Your task to perform on an android device: set the timer Image 0: 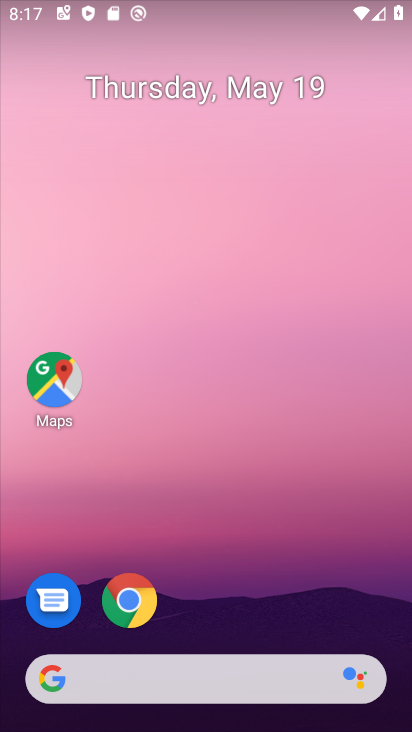
Step 0: drag from (236, 599) to (217, 21)
Your task to perform on an android device: set the timer Image 1: 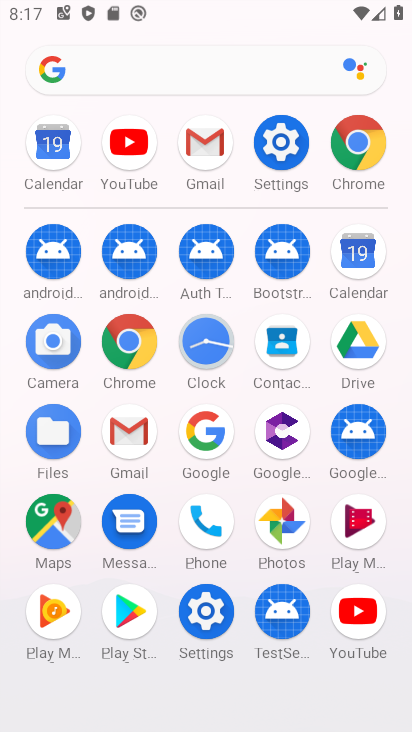
Step 1: click (211, 349)
Your task to perform on an android device: set the timer Image 2: 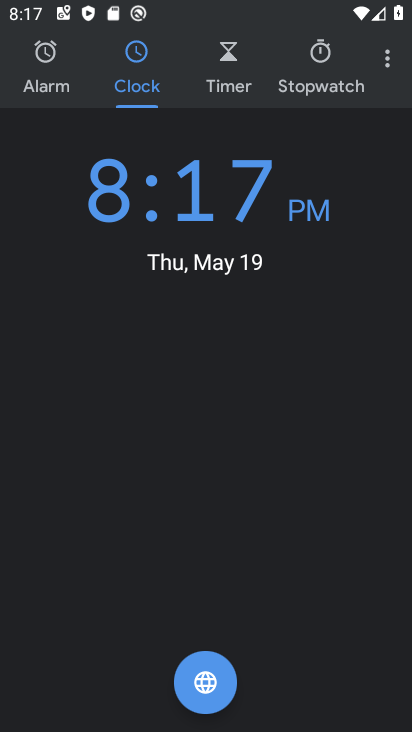
Step 2: click (234, 71)
Your task to perform on an android device: set the timer Image 3: 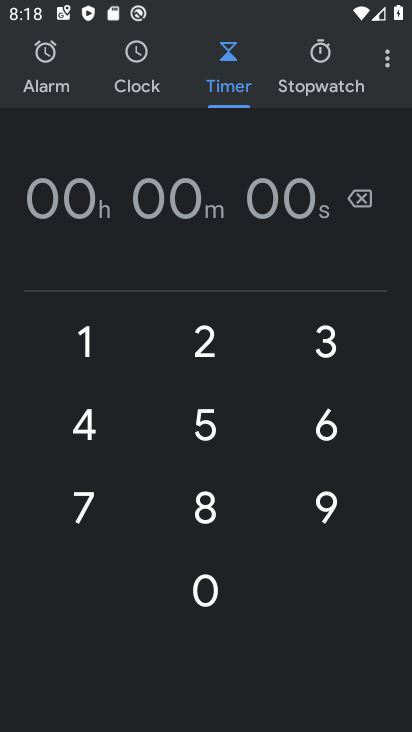
Step 3: click (202, 354)
Your task to perform on an android device: set the timer Image 4: 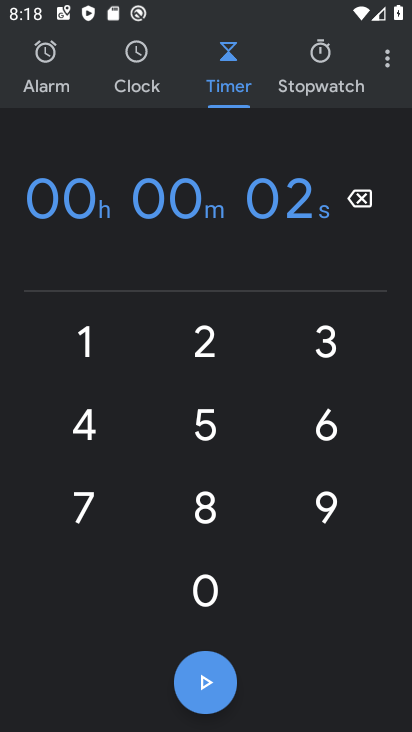
Step 4: click (208, 598)
Your task to perform on an android device: set the timer Image 5: 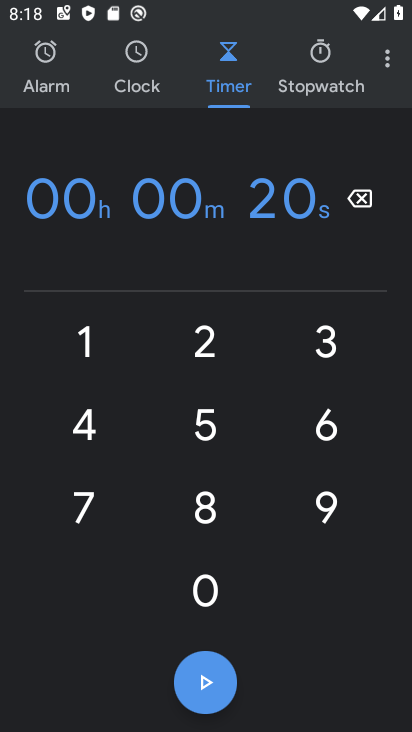
Step 5: click (209, 685)
Your task to perform on an android device: set the timer Image 6: 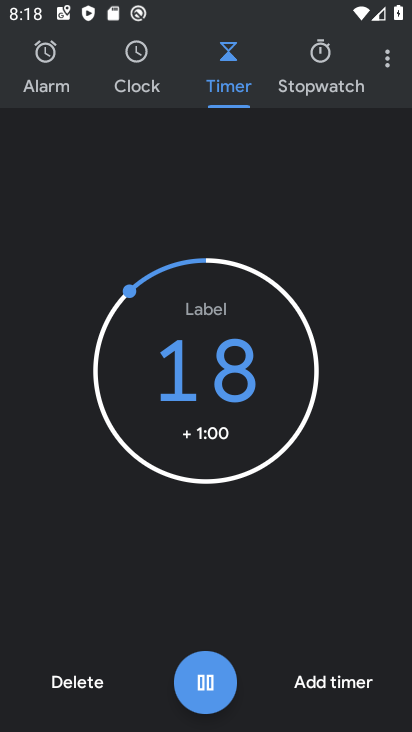
Step 6: task complete